Your task to perform on an android device: toggle airplane mode Image 0: 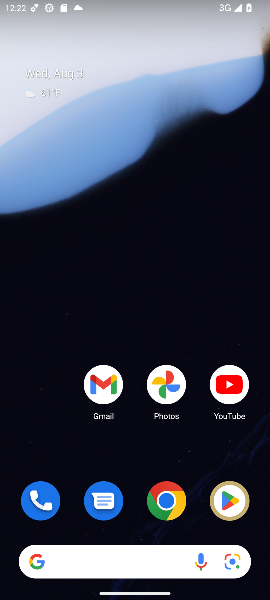
Step 0: drag from (61, 211) to (58, 61)
Your task to perform on an android device: toggle airplane mode Image 1: 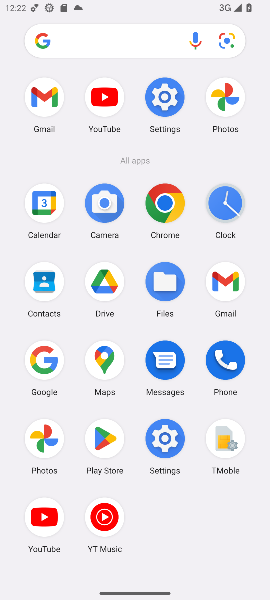
Step 1: click (167, 89)
Your task to perform on an android device: toggle airplane mode Image 2: 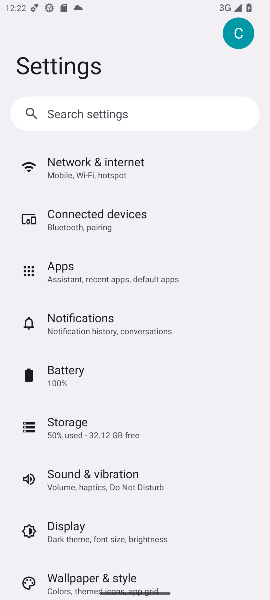
Step 2: click (79, 170)
Your task to perform on an android device: toggle airplane mode Image 3: 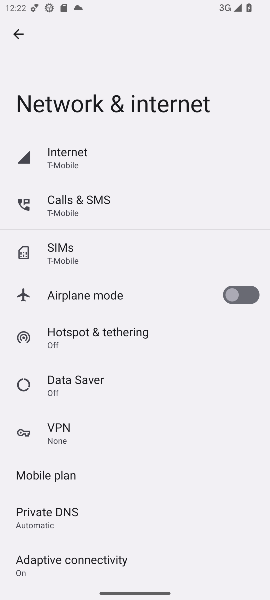
Step 3: click (247, 289)
Your task to perform on an android device: toggle airplane mode Image 4: 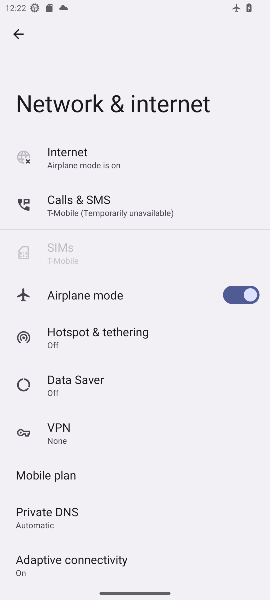
Step 4: task complete